Your task to perform on an android device: uninstall "The Home Depot" Image 0: 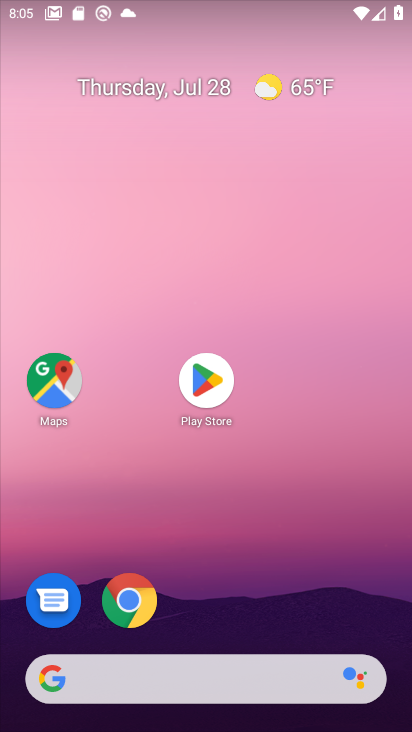
Step 0: drag from (149, 658) to (226, 3)
Your task to perform on an android device: uninstall "The Home Depot" Image 1: 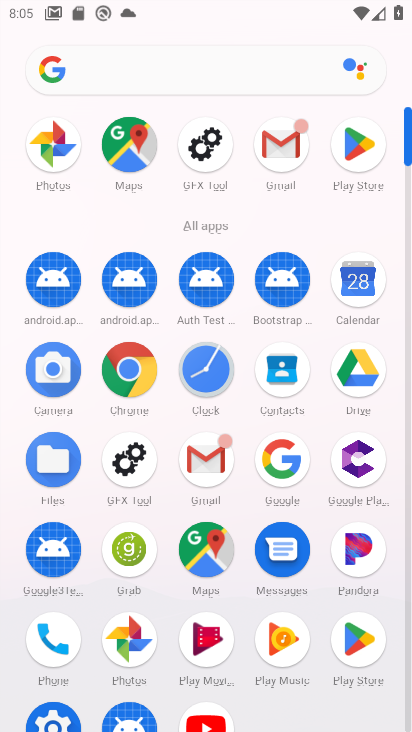
Step 1: click (354, 640)
Your task to perform on an android device: uninstall "The Home Depot" Image 2: 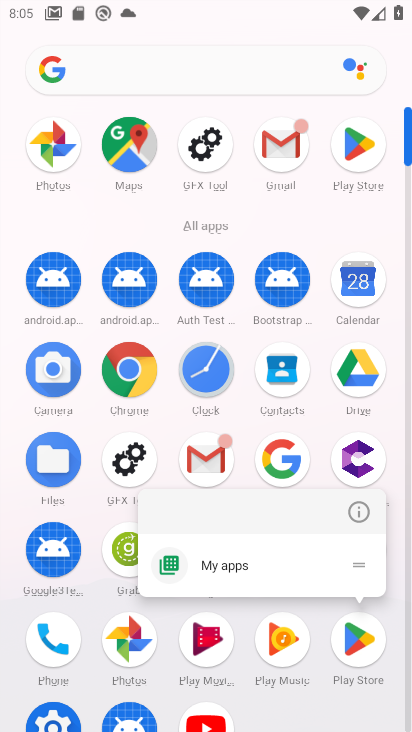
Step 2: click (357, 643)
Your task to perform on an android device: uninstall "The Home Depot" Image 3: 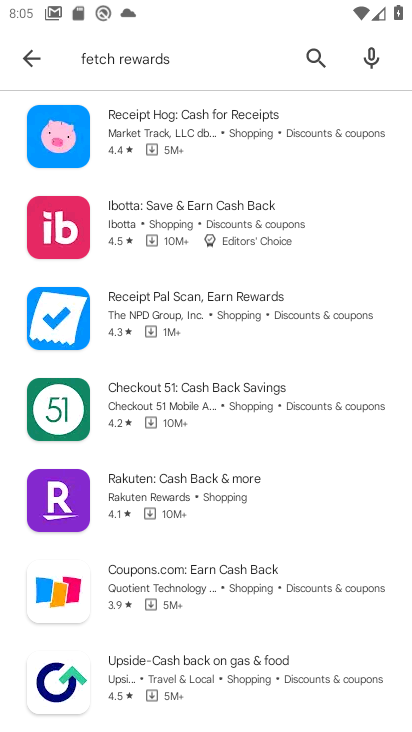
Step 3: click (312, 46)
Your task to perform on an android device: uninstall "The Home Depot" Image 4: 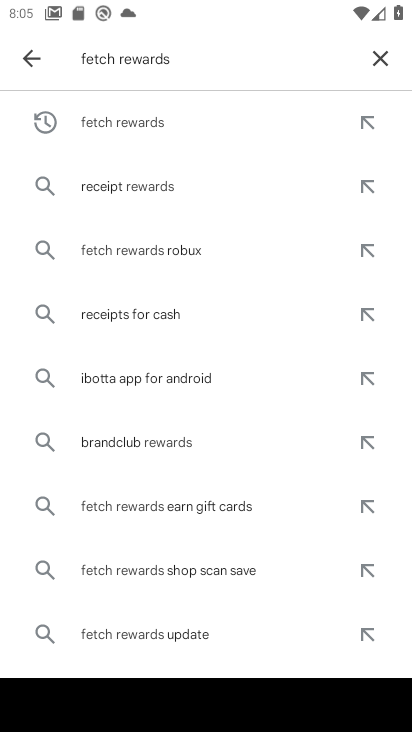
Step 4: click (382, 56)
Your task to perform on an android device: uninstall "The Home Depot" Image 5: 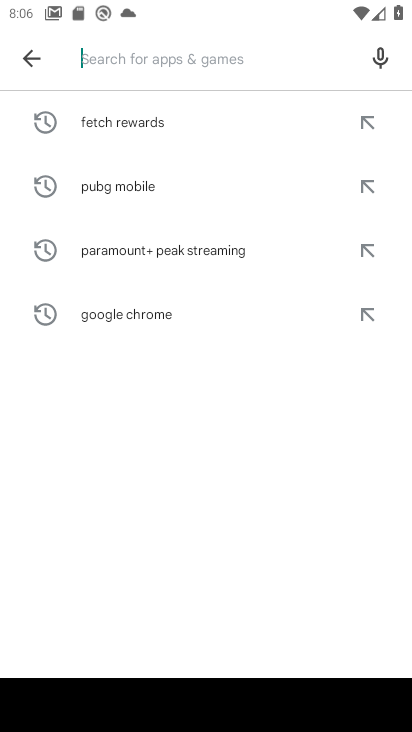
Step 5: type "The Home Depot"
Your task to perform on an android device: uninstall "The Home Depot" Image 6: 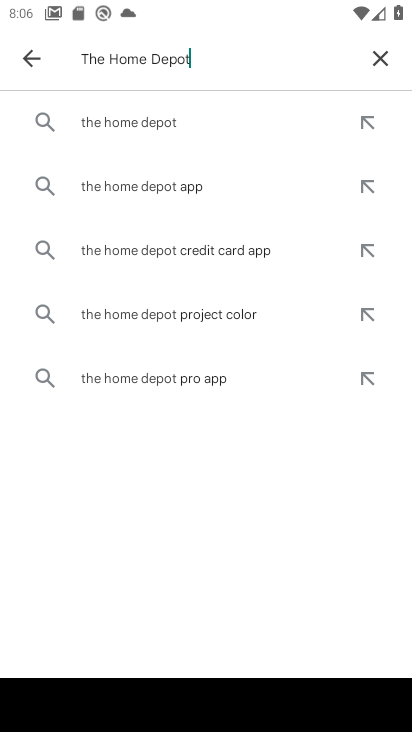
Step 6: click (146, 120)
Your task to perform on an android device: uninstall "The Home Depot" Image 7: 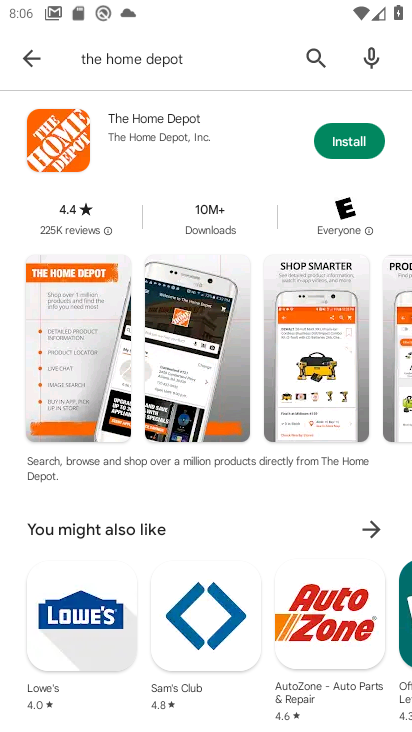
Step 7: task complete